Your task to perform on an android device: Search for pizza restaurants on Maps Image 0: 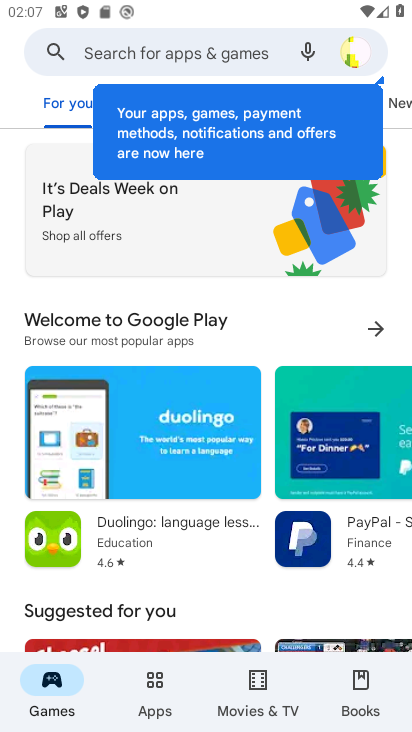
Step 0: press home button
Your task to perform on an android device: Search for pizza restaurants on Maps Image 1: 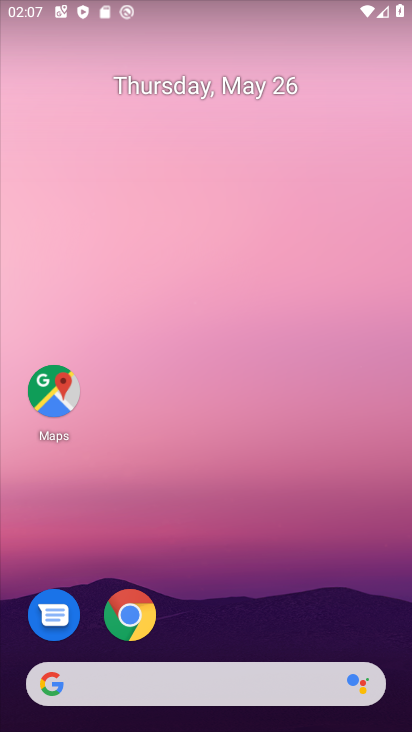
Step 1: drag from (206, 590) to (186, 21)
Your task to perform on an android device: Search for pizza restaurants on Maps Image 2: 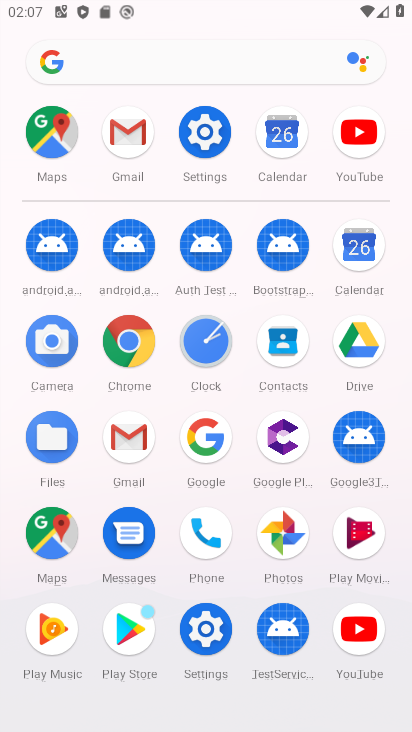
Step 2: click (50, 521)
Your task to perform on an android device: Search for pizza restaurants on Maps Image 3: 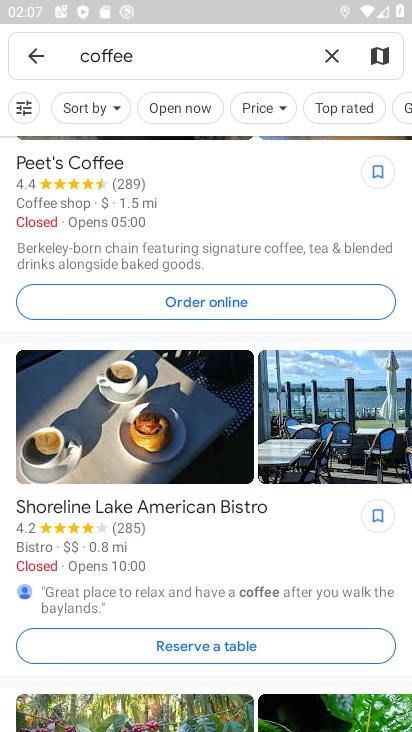
Step 3: click (331, 55)
Your task to perform on an android device: Search for pizza restaurants on Maps Image 4: 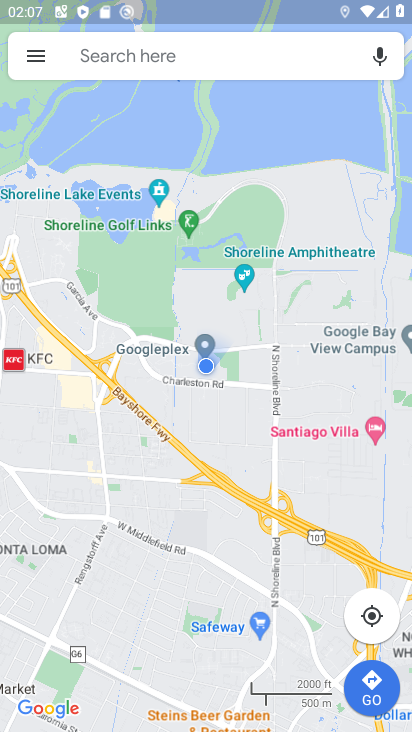
Step 4: click (121, 55)
Your task to perform on an android device: Search for pizza restaurants on Maps Image 5: 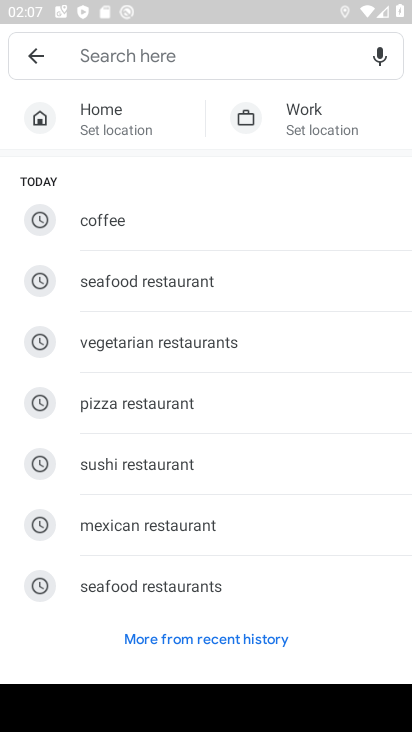
Step 5: click (134, 420)
Your task to perform on an android device: Search for pizza restaurants on Maps Image 6: 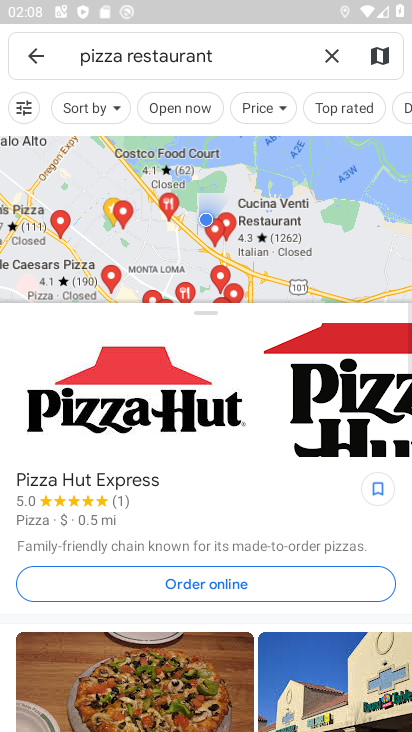
Step 6: task complete